Your task to perform on an android device: Find coffee shops on Maps Image 0: 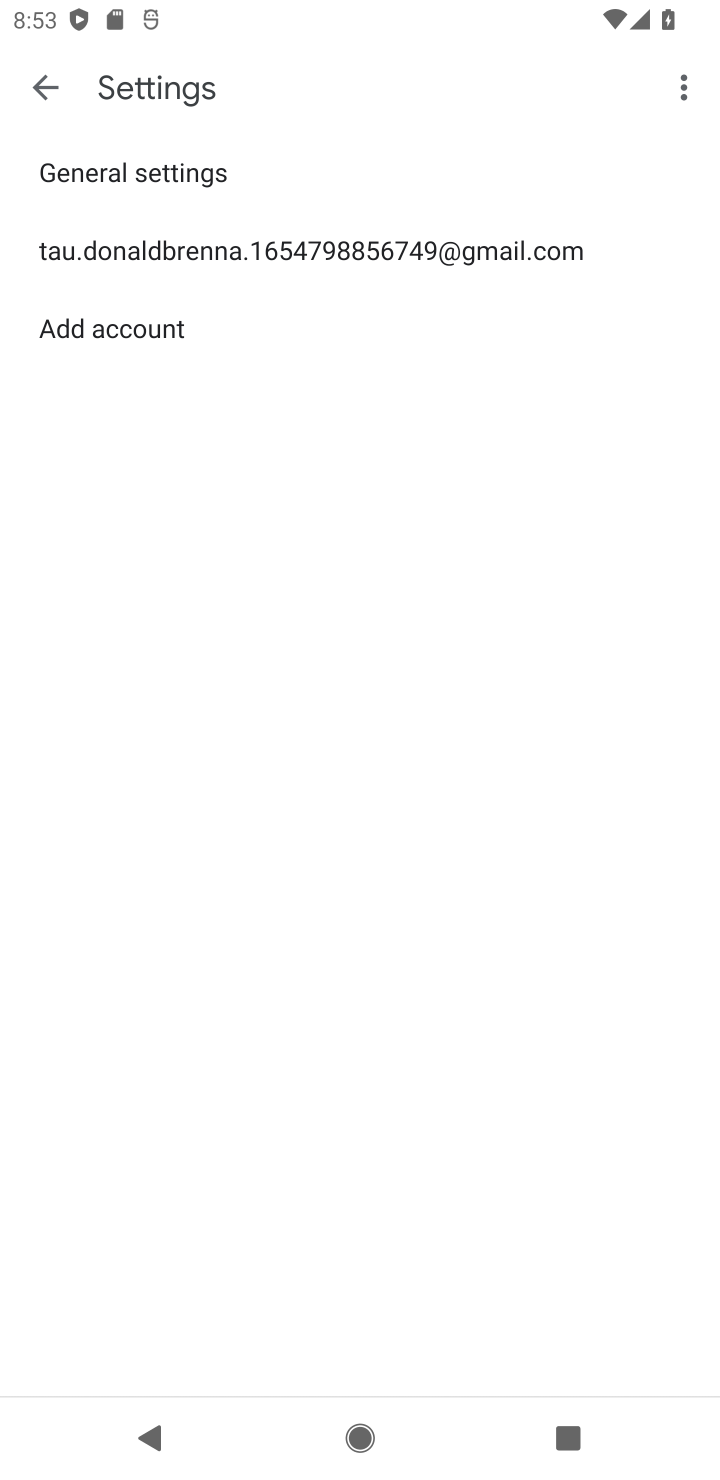
Step 0: press home button
Your task to perform on an android device: Find coffee shops on Maps Image 1: 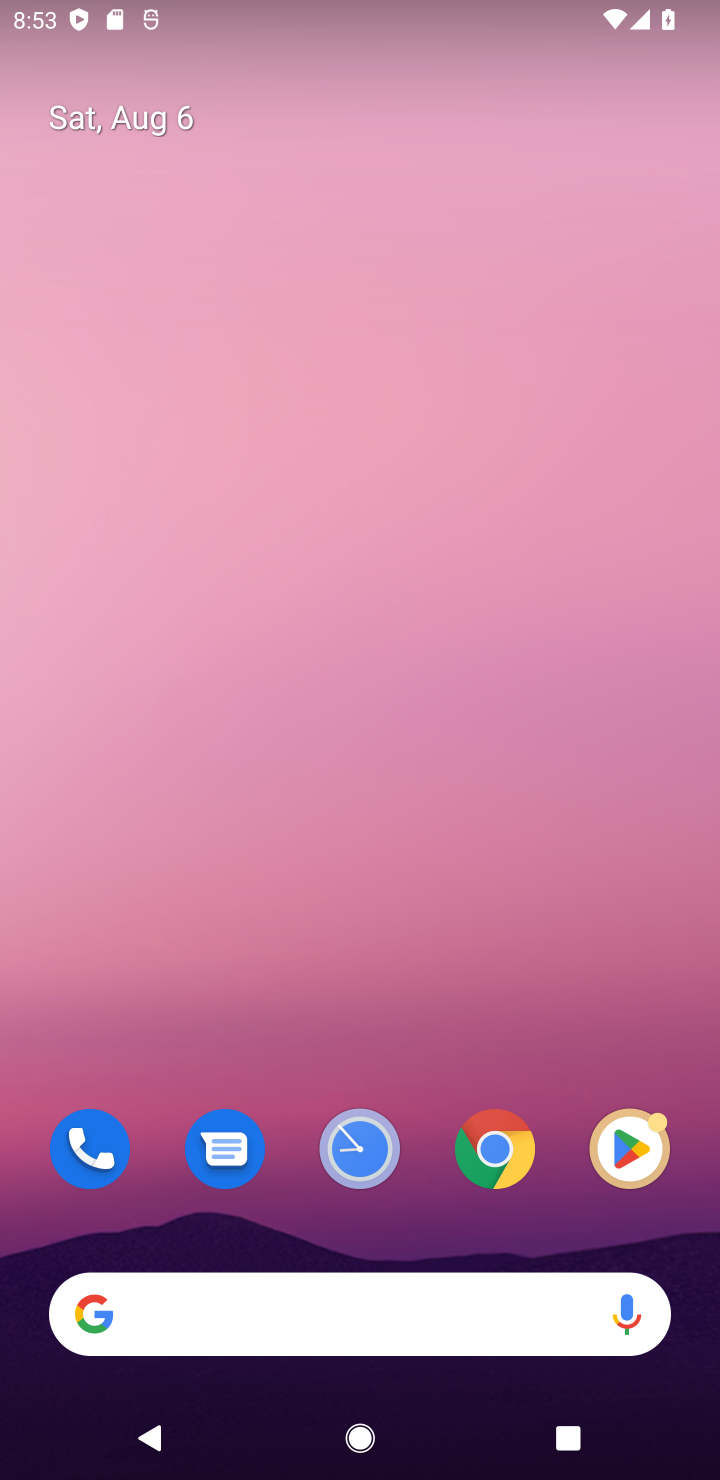
Step 1: drag from (406, 985) to (299, 16)
Your task to perform on an android device: Find coffee shops on Maps Image 2: 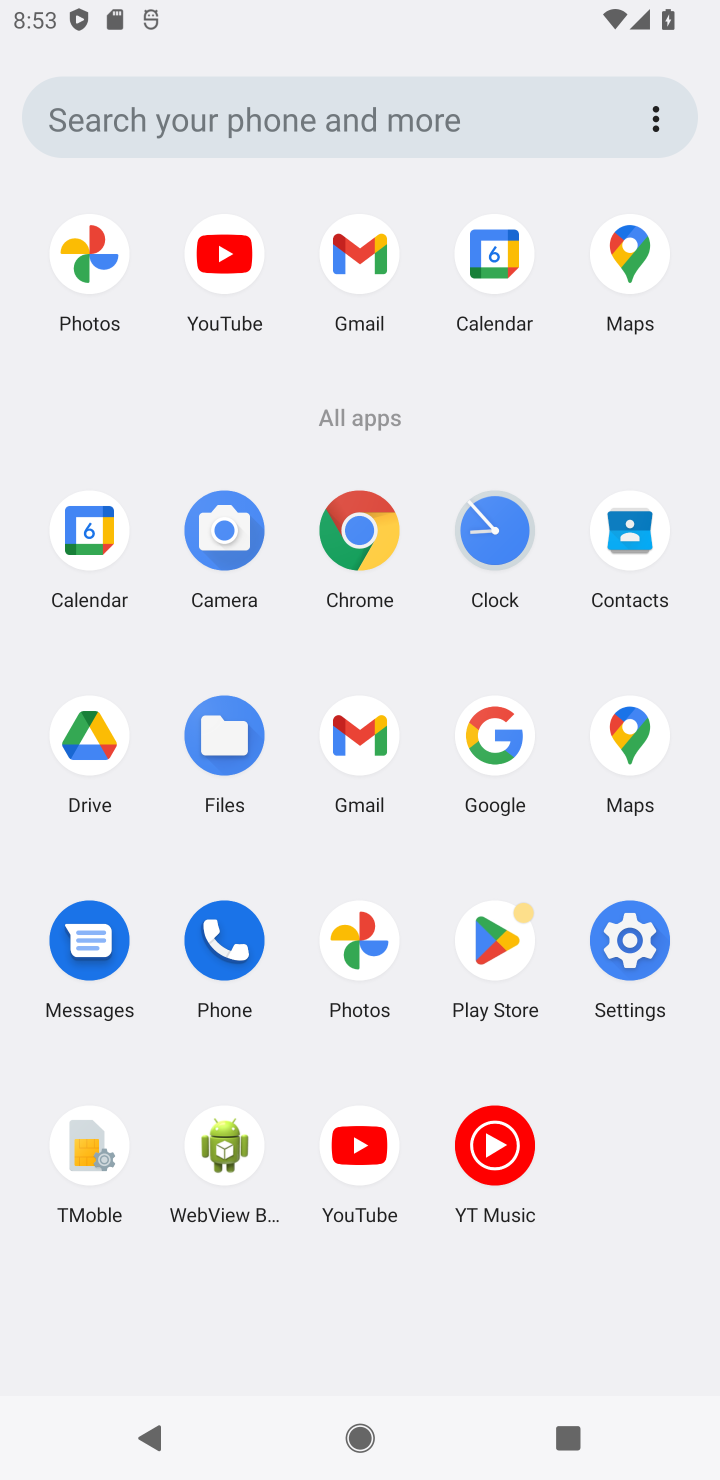
Step 2: click (601, 746)
Your task to perform on an android device: Find coffee shops on Maps Image 3: 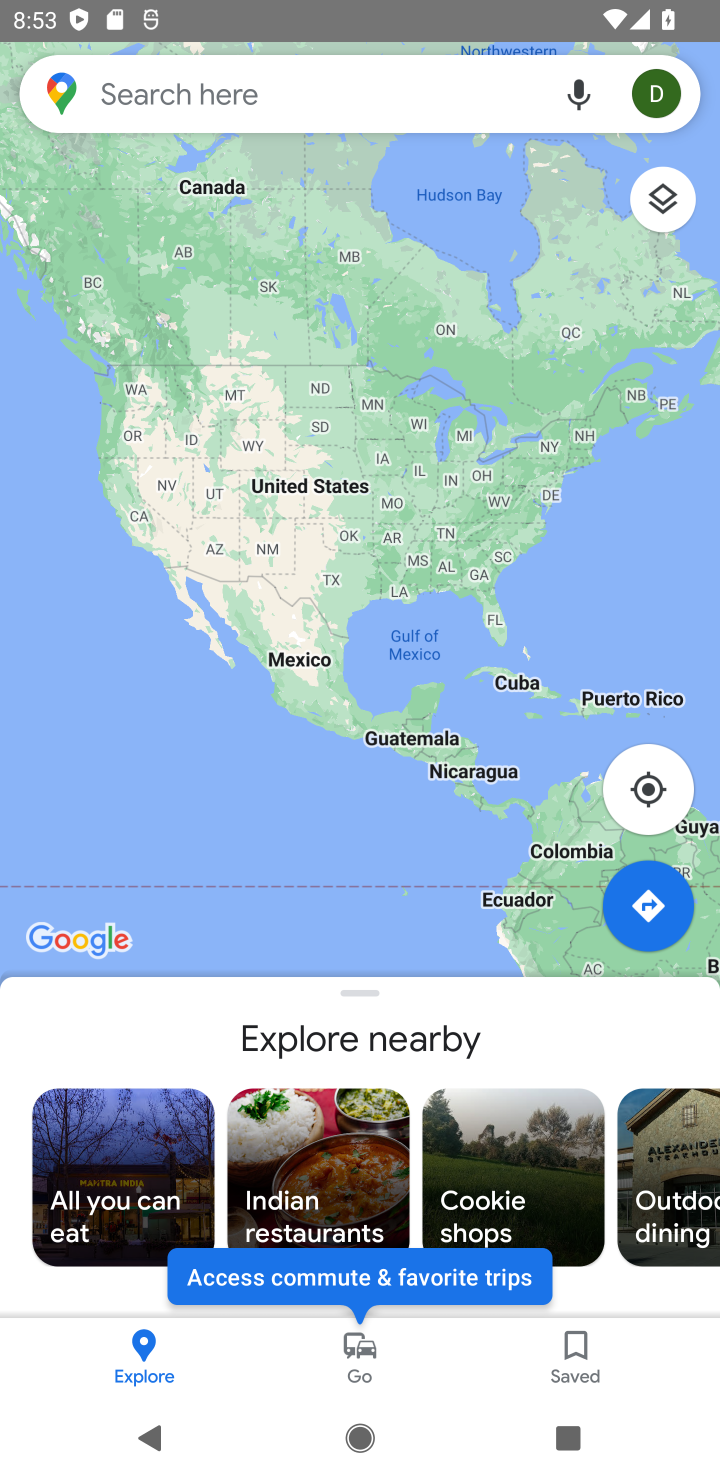
Step 3: click (315, 117)
Your task to perform on an android device: Find coffee shops on Maps Image 4: 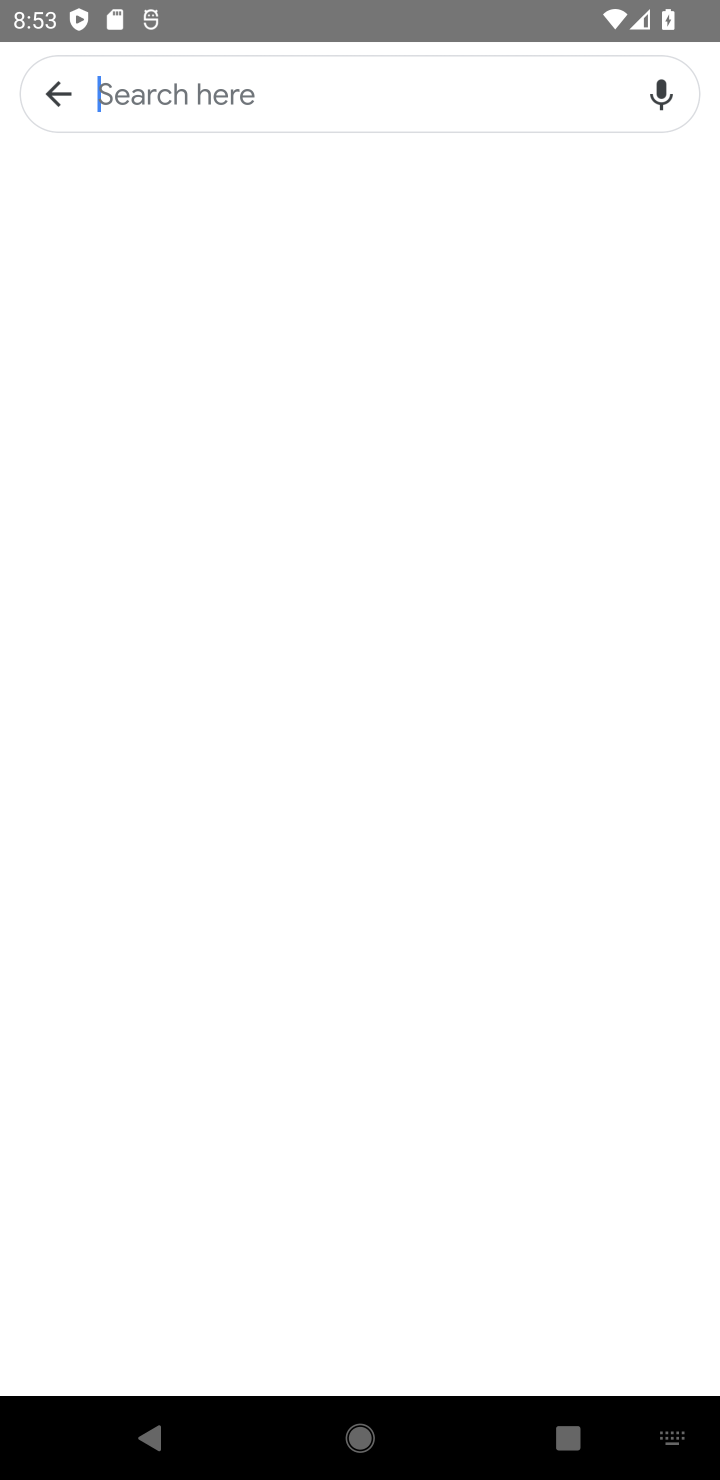
Step 4: type "coffee shops"
Your task to perform on an android device: Find coffee shops on Maps Image 5: 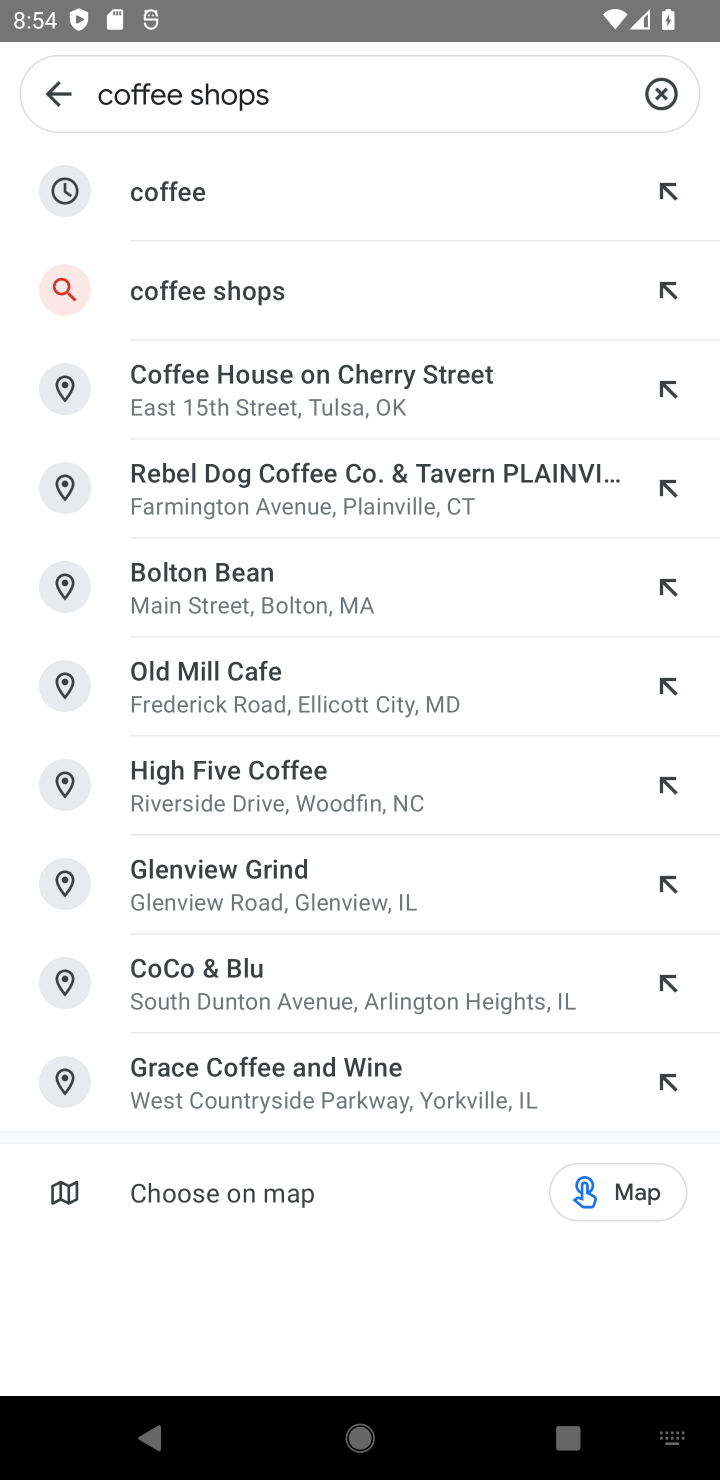
Step 5: click (252, 282)
Your task to perform on an android device: Find coffee shops on Maps Image 6: 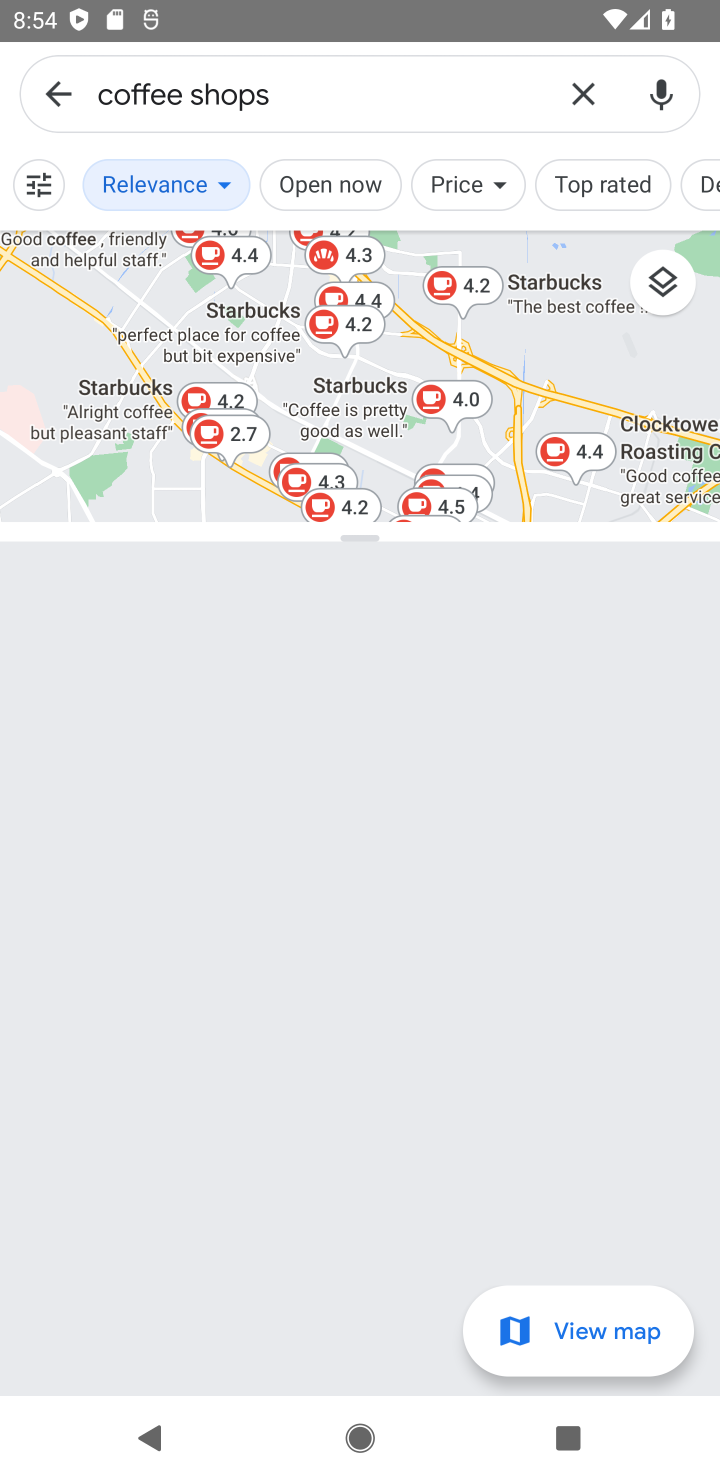
Step 6: task complete